Your task to perform on an android device: Find coffee shops on Maps Image 0: 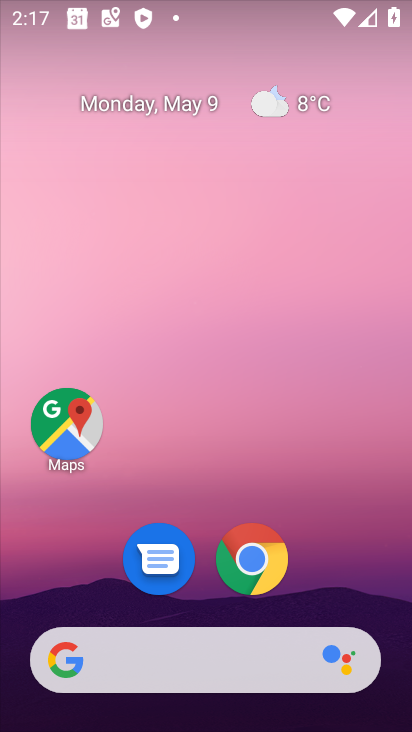
Step 0: click (67, 434)
Your task to perform on an android device: Find coffee shops on Maps Image 1: 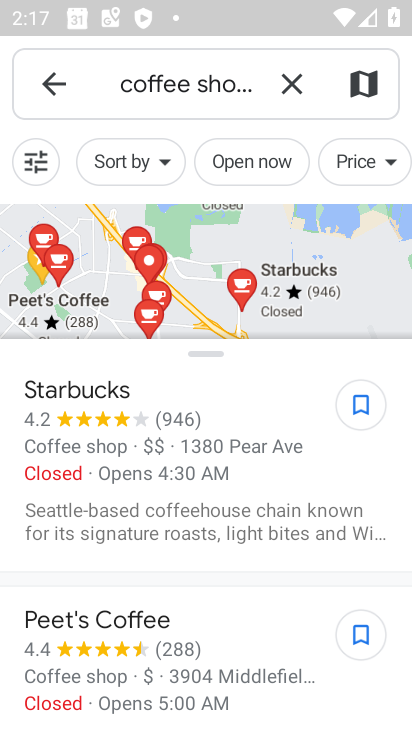
Step 1: task complete